Your task to perform on an android device: choose inbox layout in the gmail app Image 0: 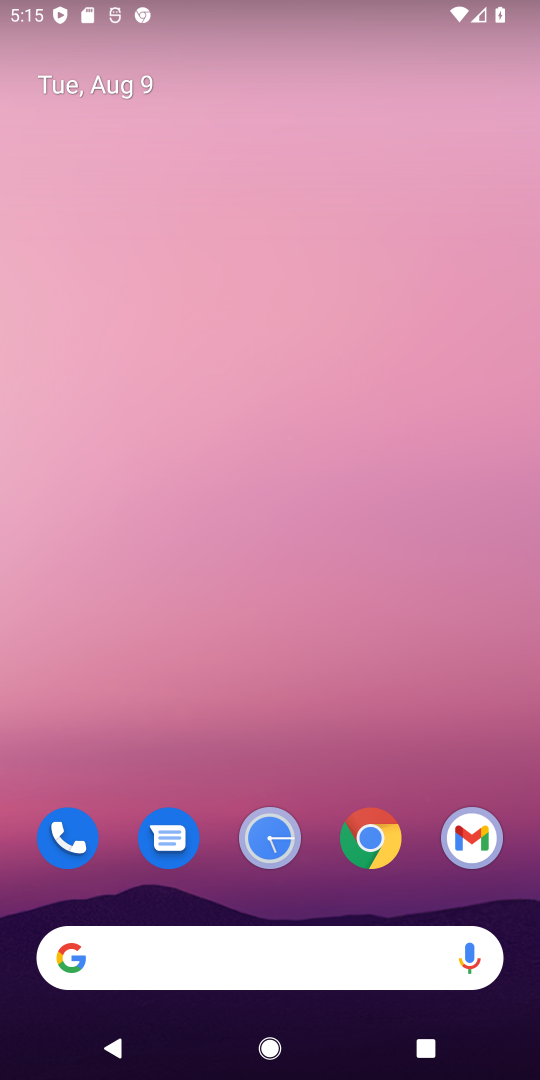
Step 0: click (473, 831)
Your task to perform on an android device: choose inbox layout in the gmail app Image 1: 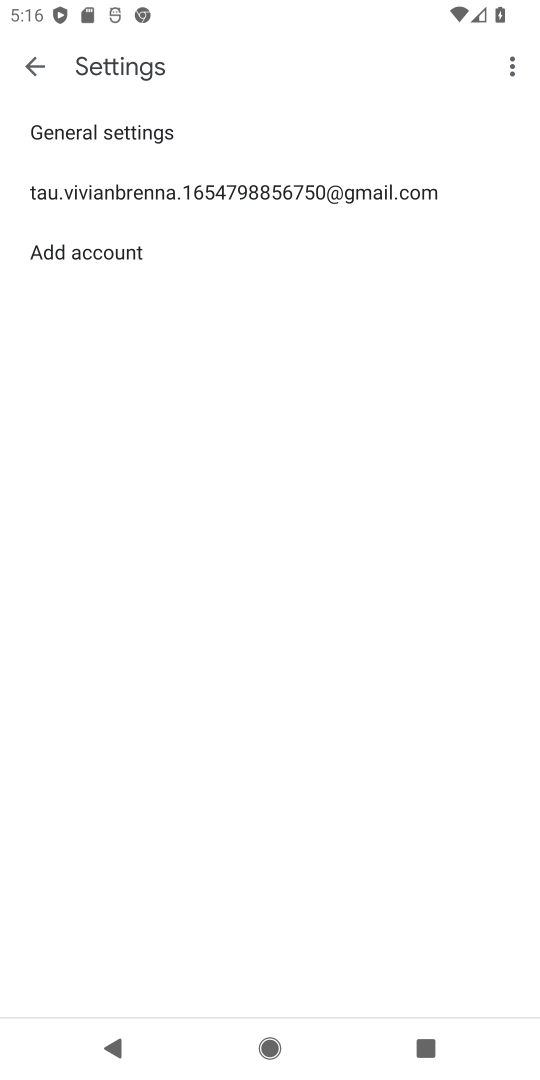
Step 1: click (212, 194)
Your task to perform on an android device: choose inbox layout in the gmail app Image 2: 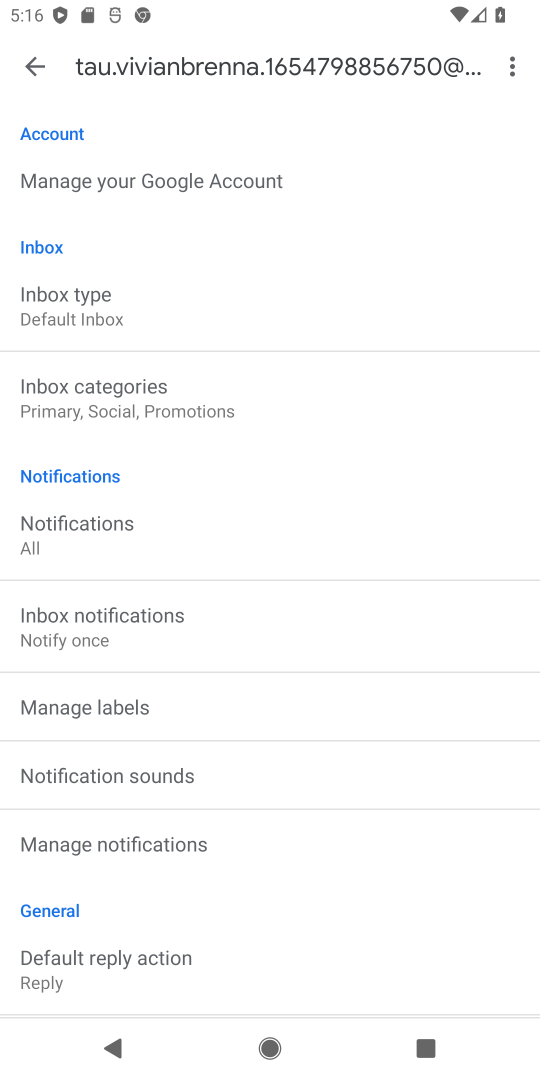
Step 2: click (158, 305)
Your task to perform on an android device: choose inbox layout in the gmail app Image 3: 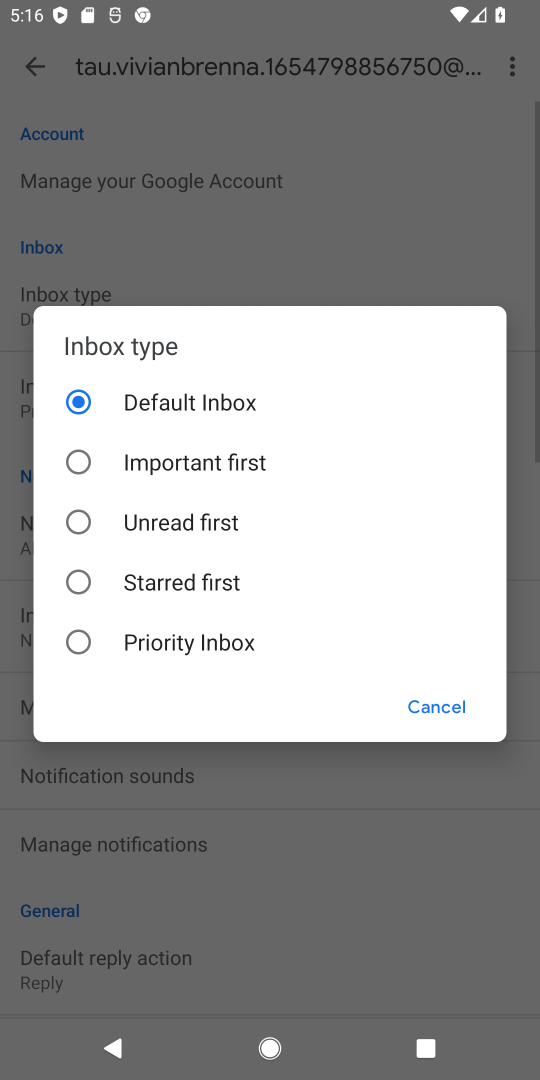
Step 3: click (185, 488)
Your task to perform on an android device: choose inbox layout in the gmail app Image 4: 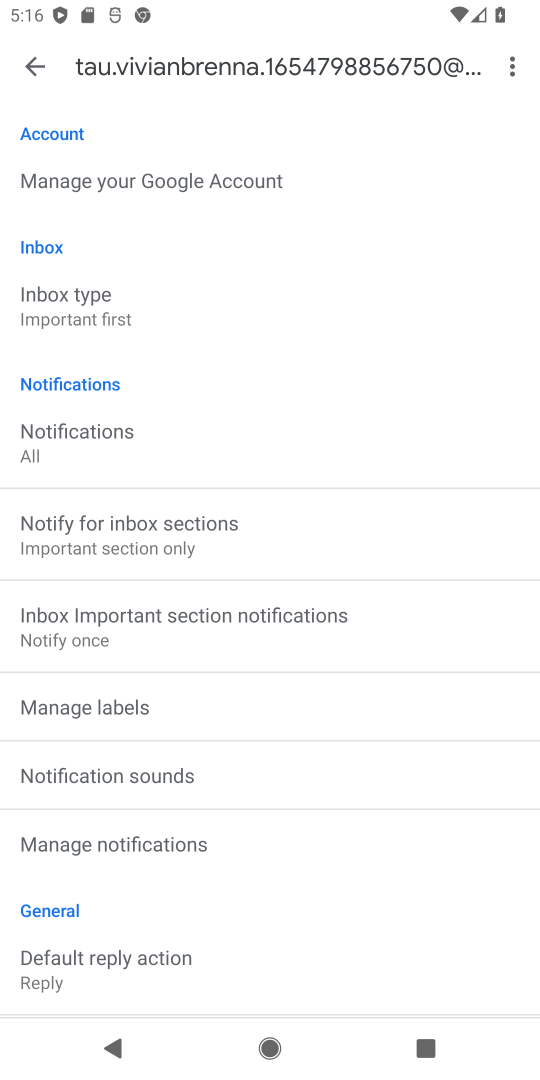
Step 4: task complete